Your task to perform on an android device: change the clock display to analog Image 0: 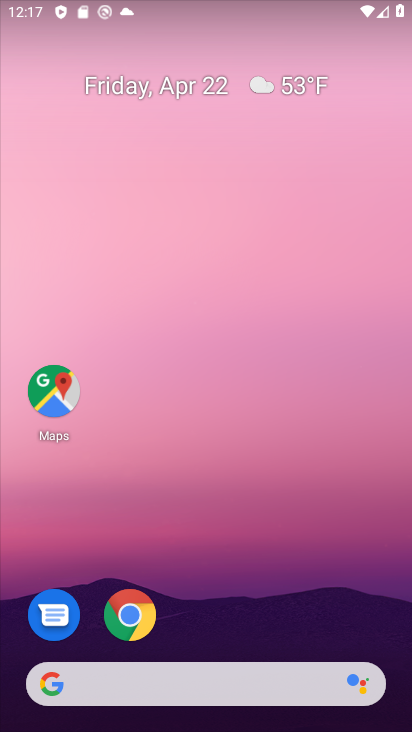
Step 0: drag from (351, 595) to (370, 49)
Your task to perform on an android device: change the clock display to analog Image 1: 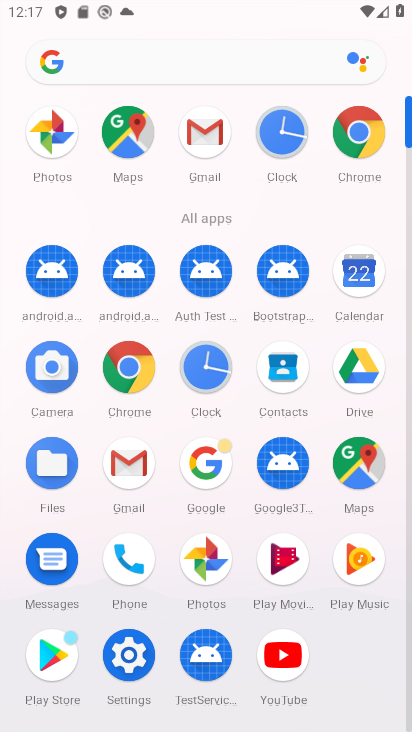
Step 1: click (279, 139)
Your task to perform on an android device: change the clock display to analog Image 2: 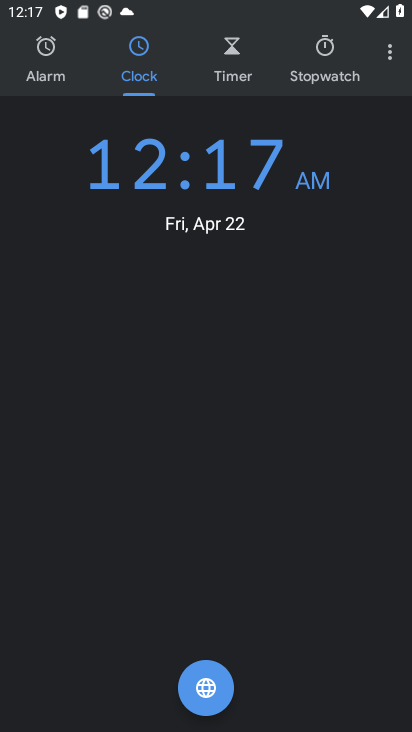
Step 2: click (389, 56)
Your task to perform on an android device: change the clock display to analog Image 3: 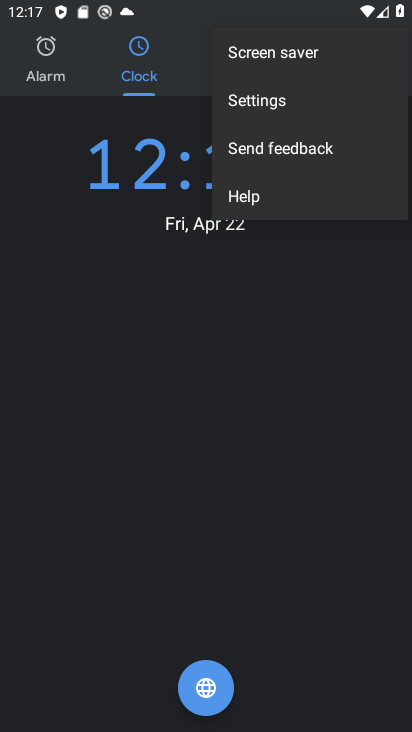
Step 3: click (273, 107)
Your task to perform on an android device: change the clock display to analog Image 4: 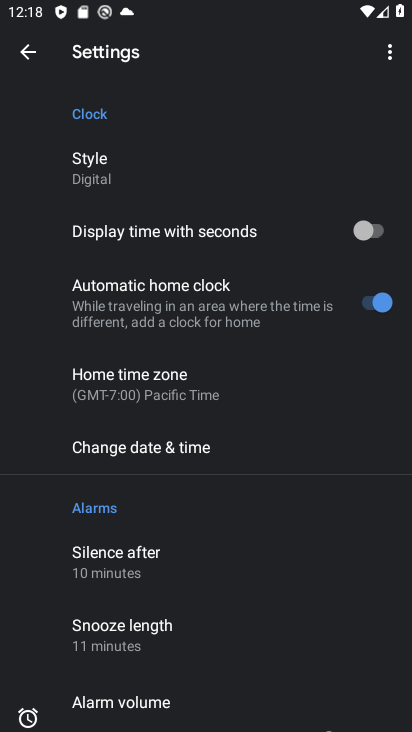
Step 4: click (102, 164)
Your task to perform on an android device: change the clock display to analog Image 5: 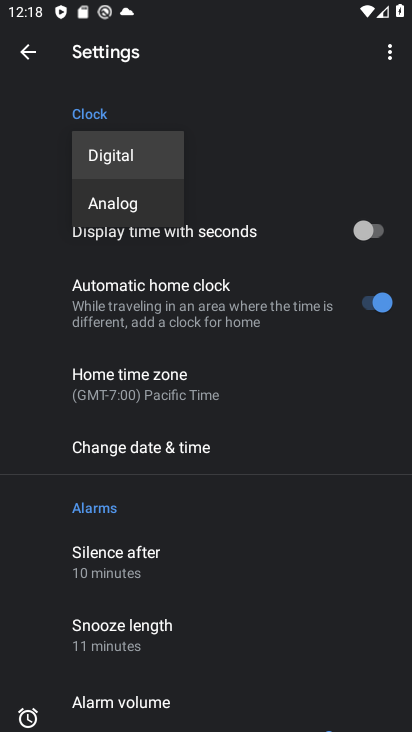
Step 5: click (112, 200)
Your task to perform on an android device: change the clock display to analog Image 6: 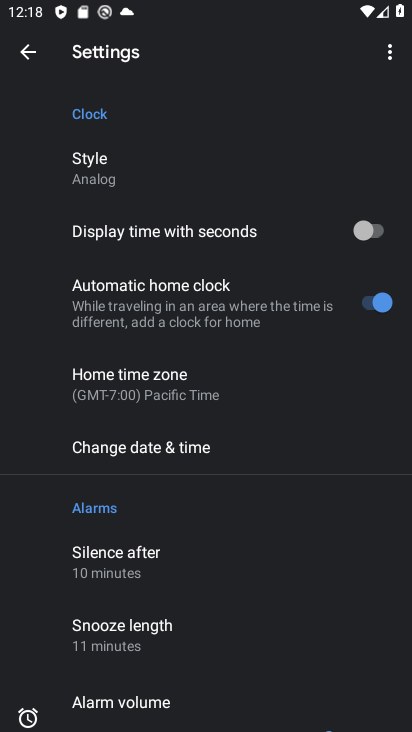
Step 6: task complete